Your task to perform on an android device: Open sound settings Image 0: 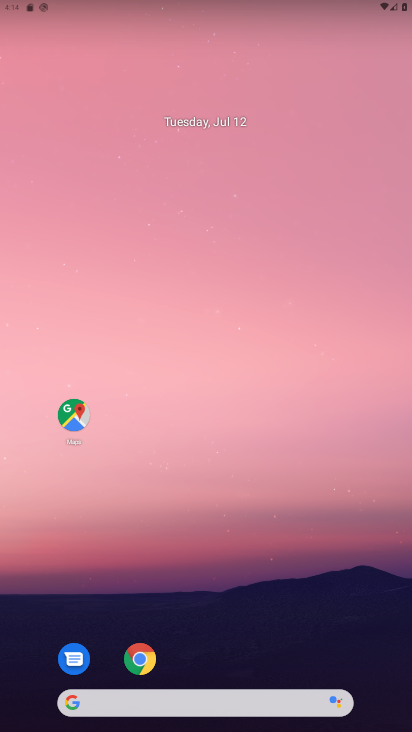
Step 0: drag from (116, 415) to (231, 9)
Your task to perform on an android device: Open sound settings Image 1: 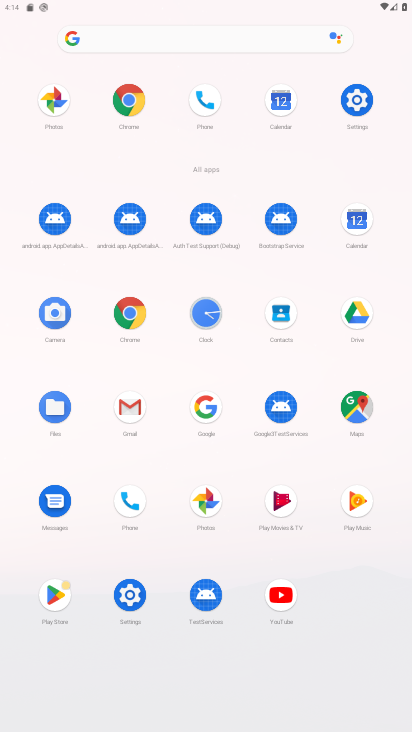
Step 1: click (124, 584)
Your task to perform on an android device: Open sound settings Image 2: 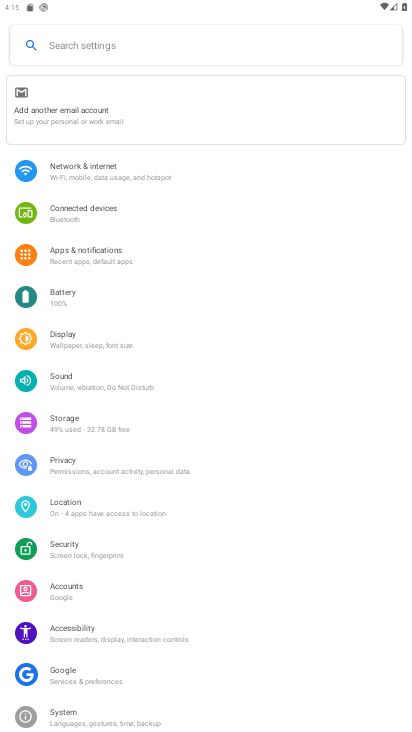
Step 2: click (81, 384)
Your task to perform on an android device: Open sound settings Image 3: 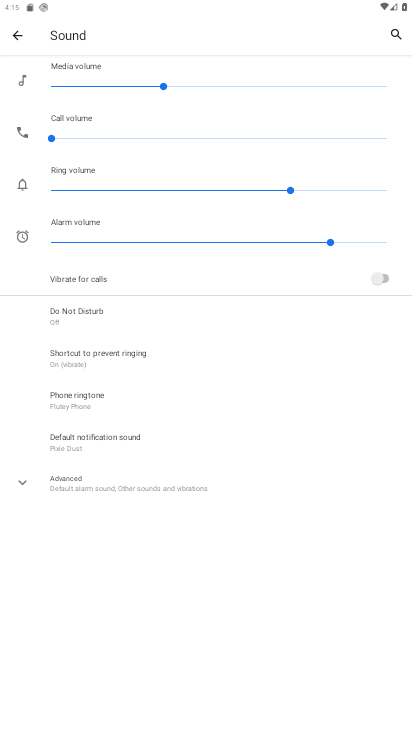
Step 3: task complete